Your task to perform on an android device: find snoozed emails in the gmail app Image 0: 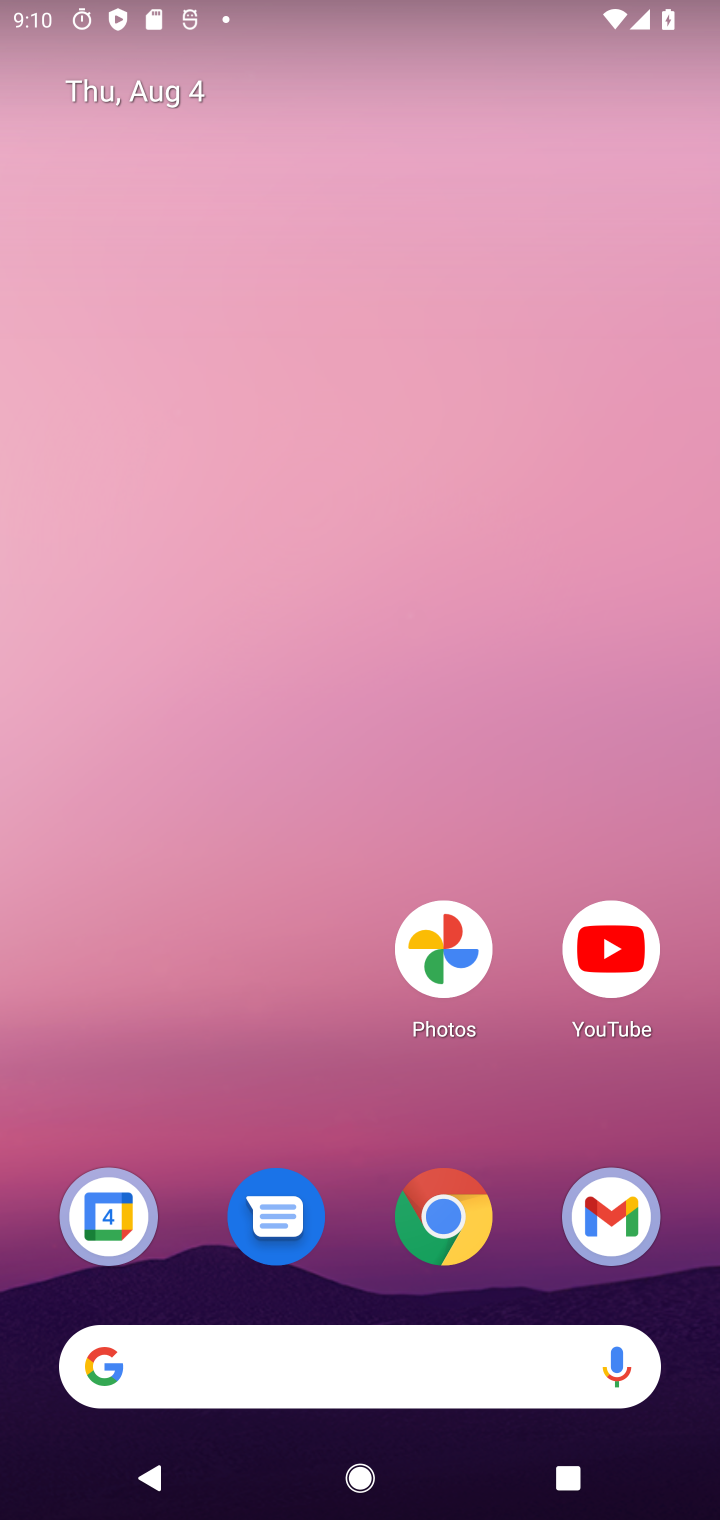
Step 0: drag from (364, 913) to (365, 51)
Your task to perform on an android device: find snoozed emails in the gmail app Image 1: 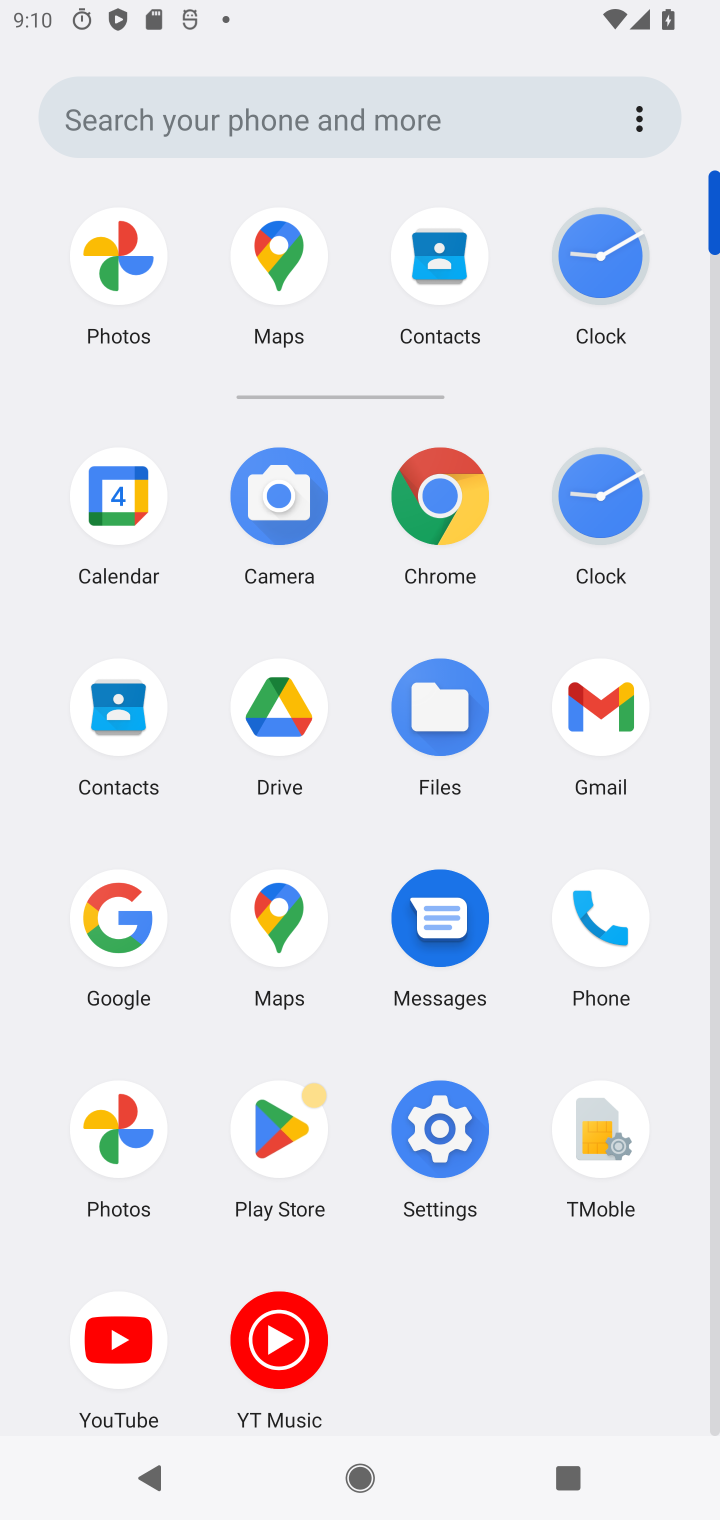
Step 1: click (603, 712)
Your task to perform on an android device: find snoozed emails in the gmail app Image 2: 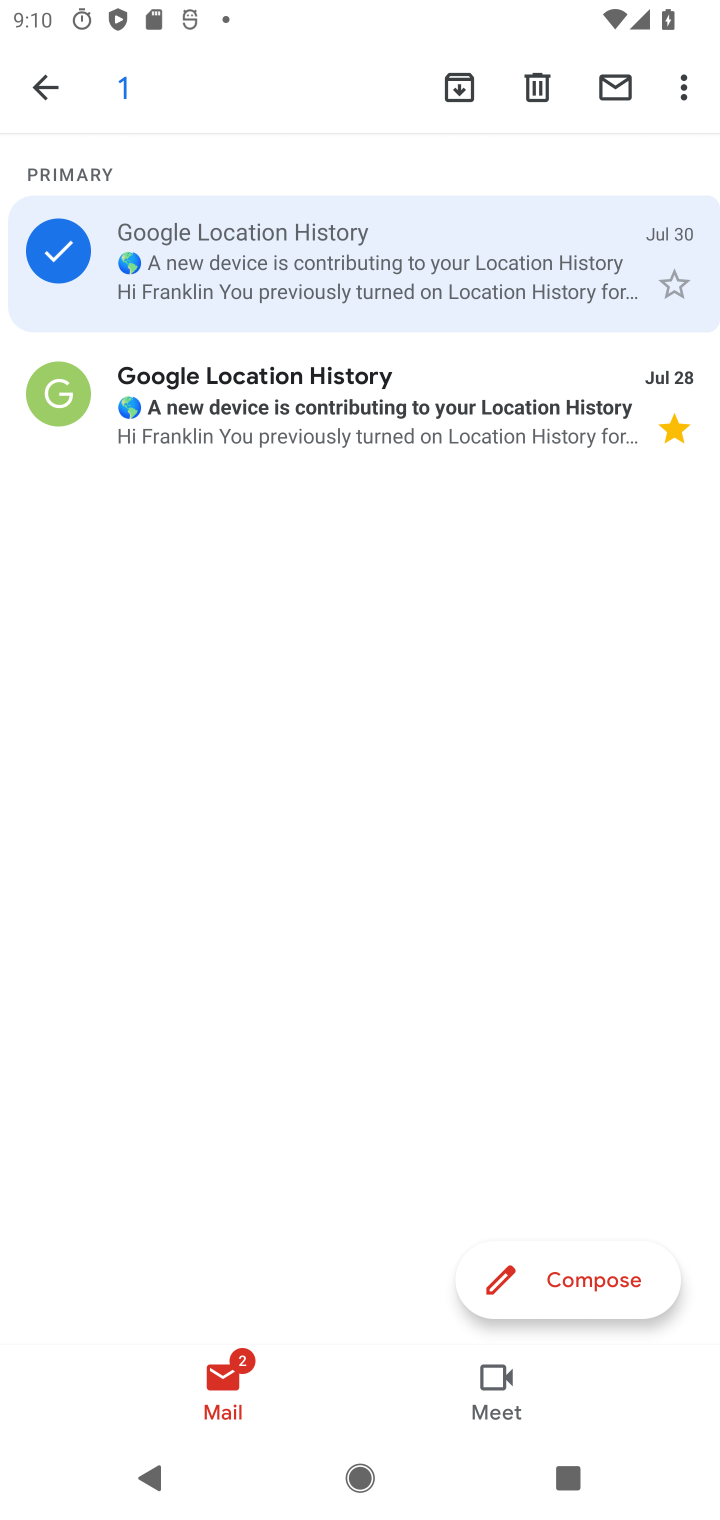
Step 2: click (53, 85)
Your task to perform on an android device: find snoozed emails in the gmail app Image 3: 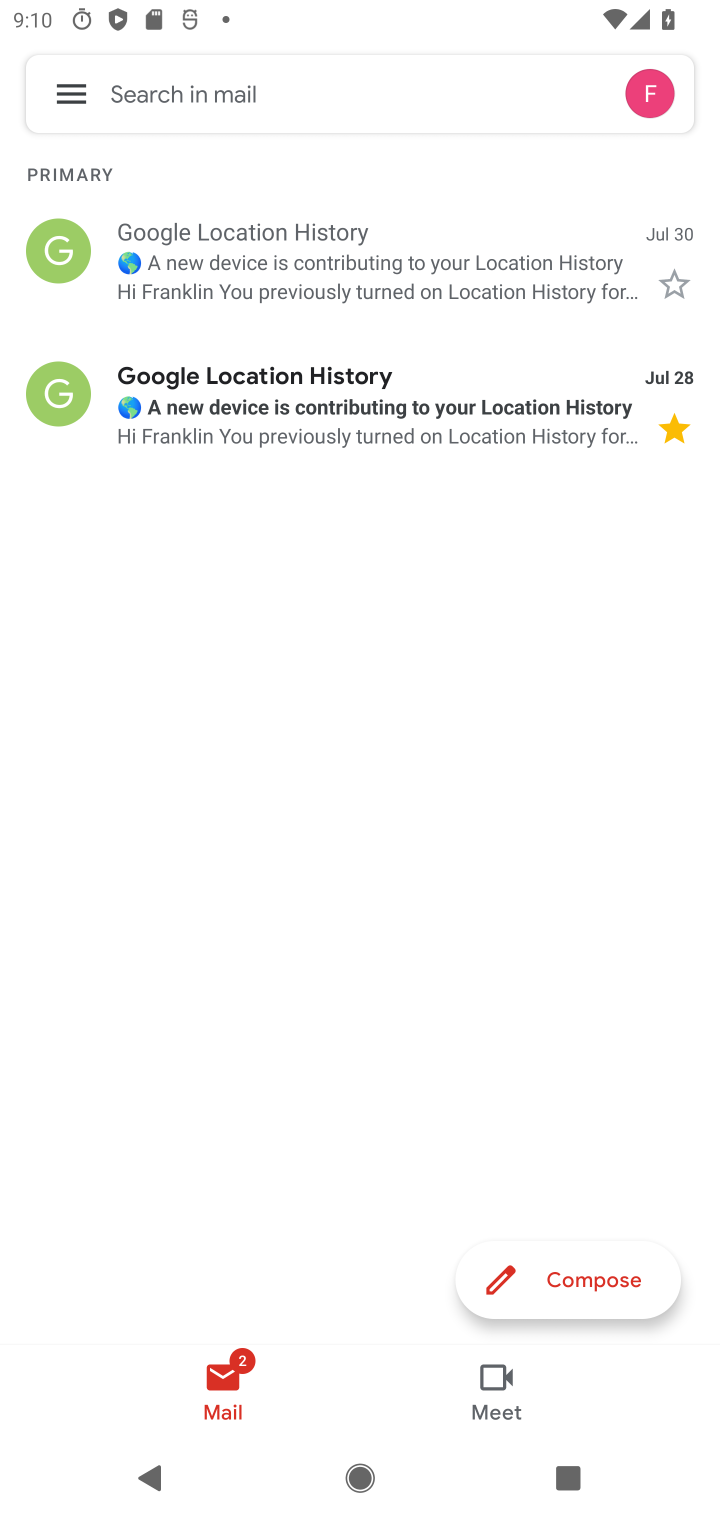
Step 3: click (63, 98)
Your task to perform on an android device: find snoozed emails in the gmail app Image 4: 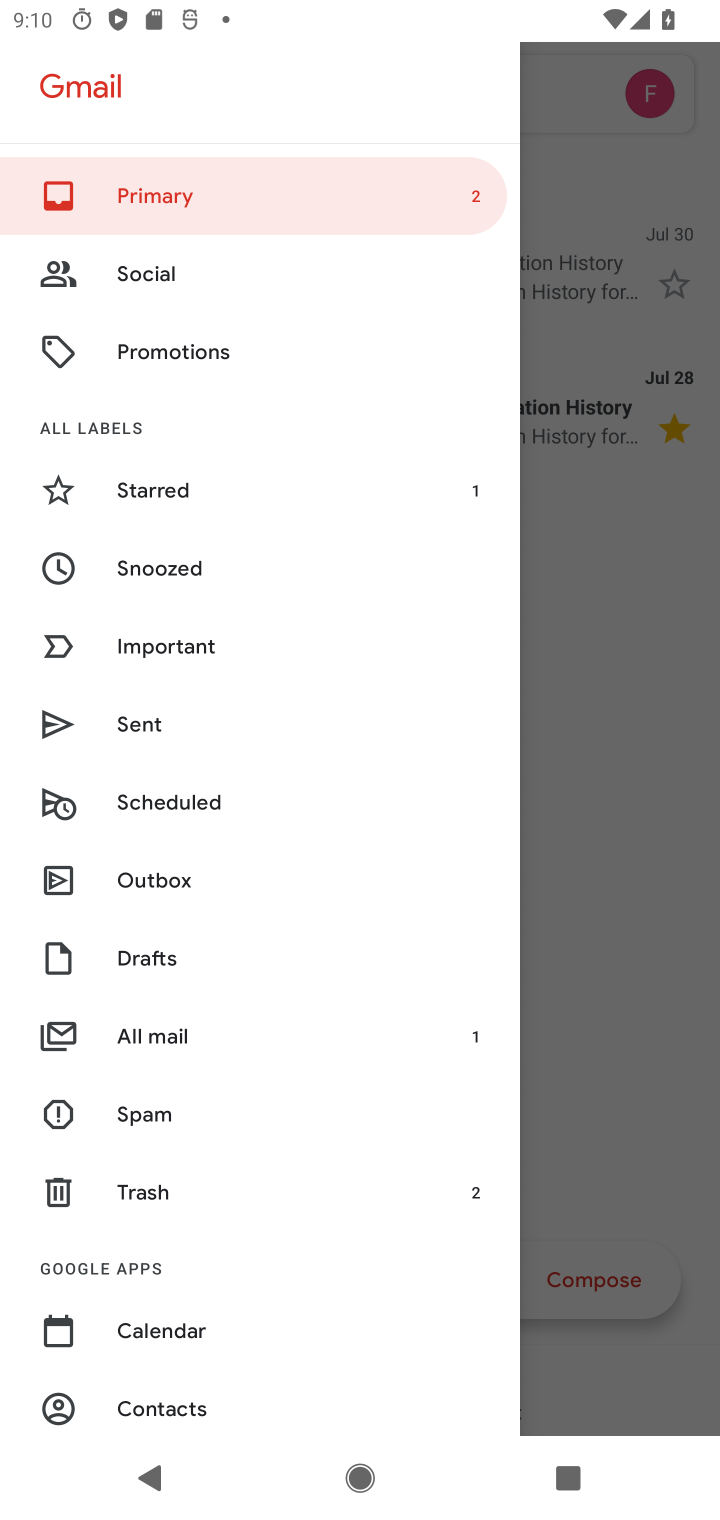
Step 4: drag from (178, 1330) to (172, 940)
Your task to perform on an android device: find snoozed emails in the gmail app Image 5: 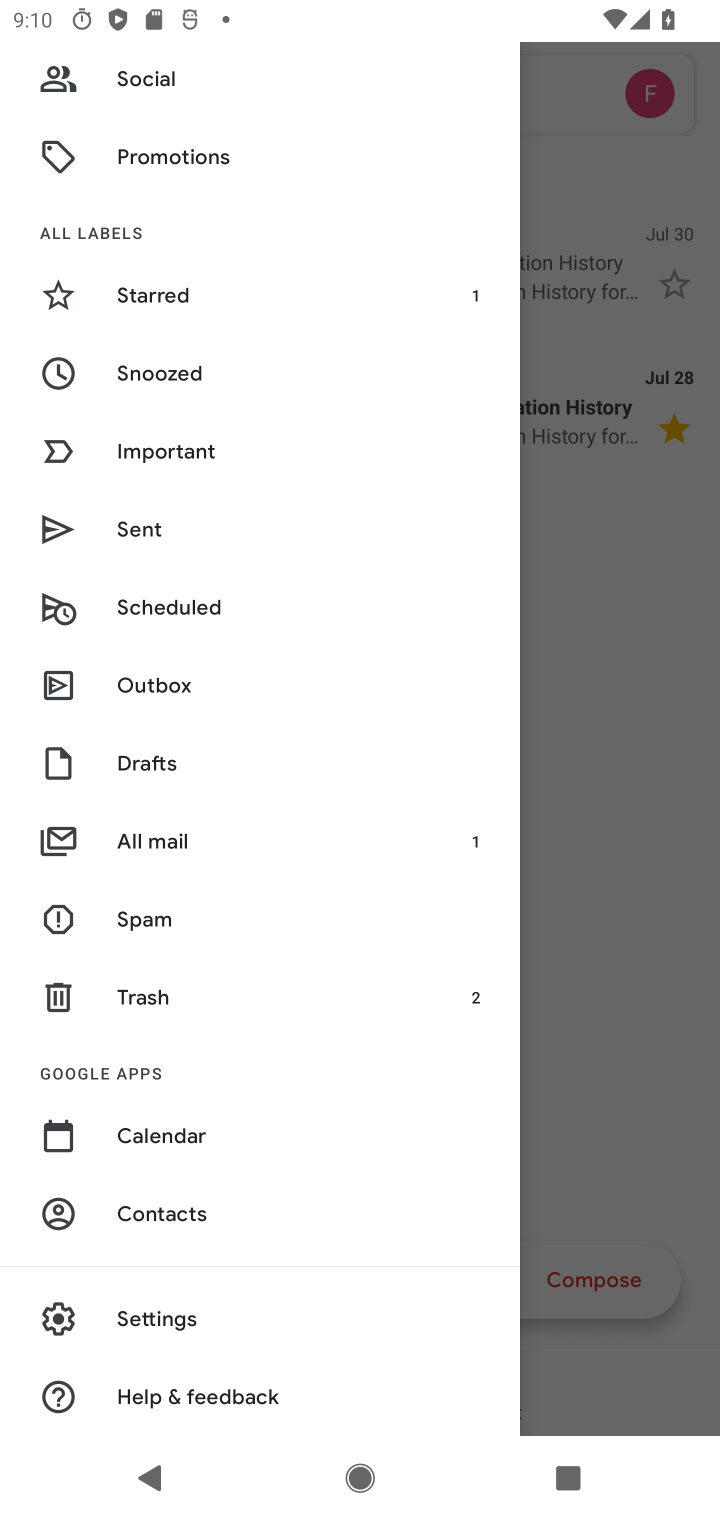
Step 5: click (175, 367)
Your task to perform on an android device: find snoozed emails in the gmail app Image 6: 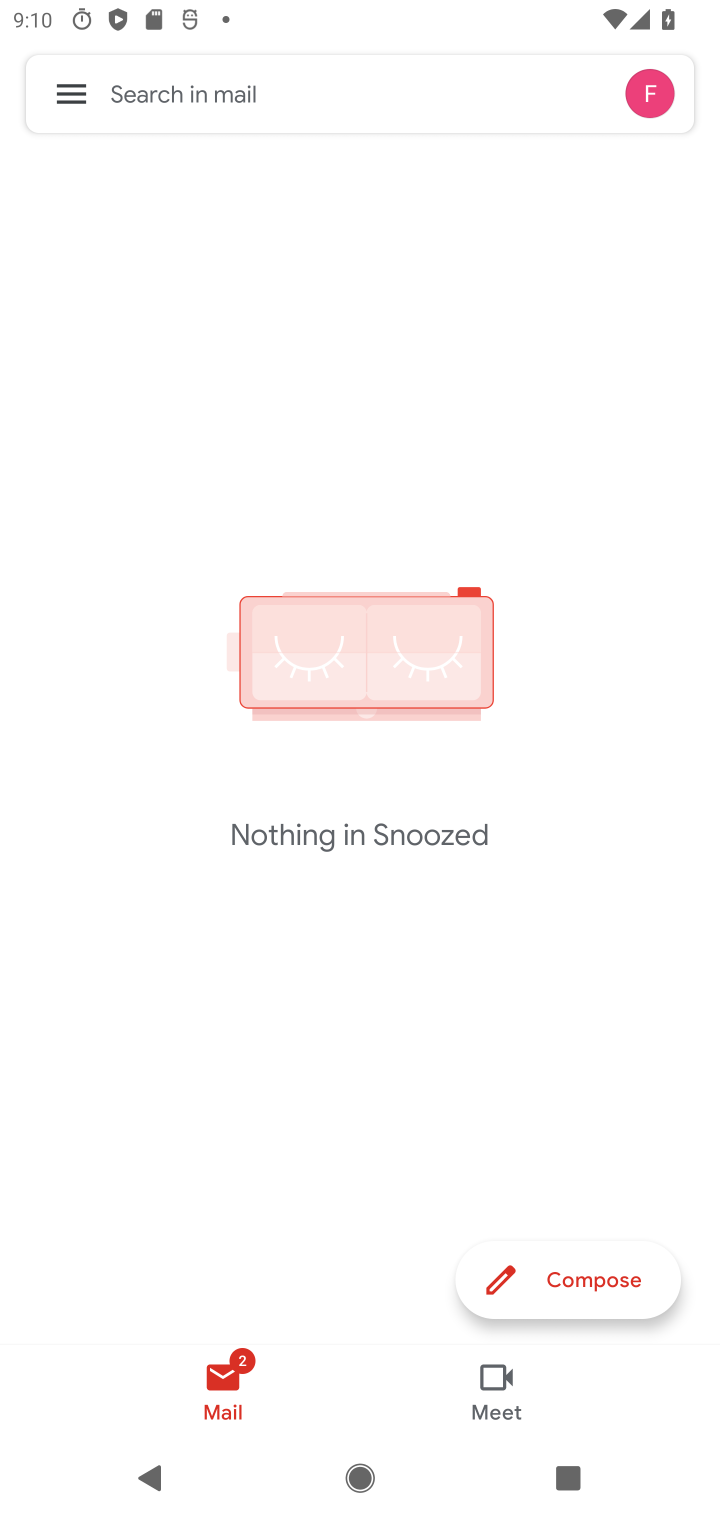
Step 6: task complete